Your task to perform on an android device: Open Chrome and go to the settings page Image 0: 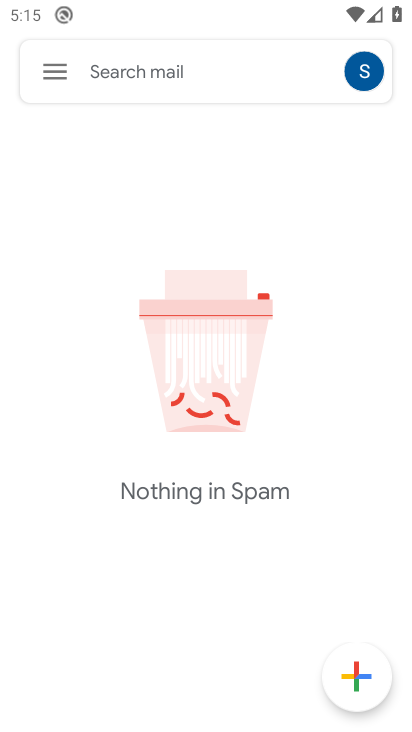
Step 0: drag from (187, 310) to (187, 254)
Your task to perform on an android device: Open Chrome and go to the settings page Image 1: 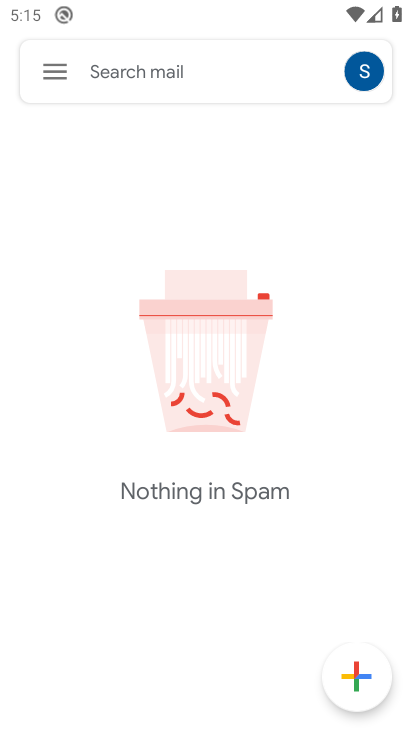
Step 1: press back button
Your task to perform on an android device: Open Chrome and go to the settings page Image 2: 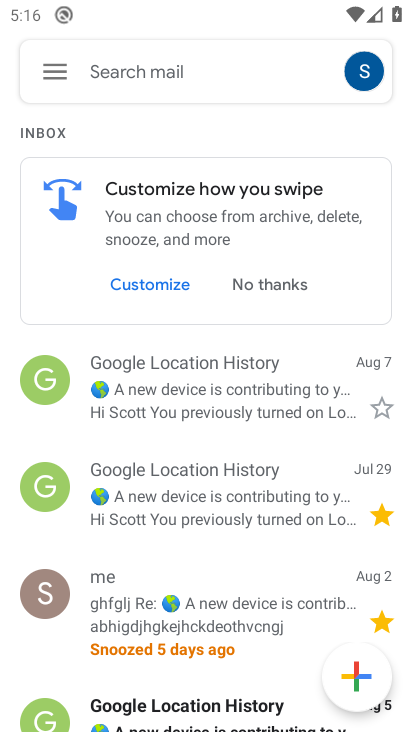
Step 2: press home button
Your task to perform on an android device: Open Chrome and go to the settings page Image 3: 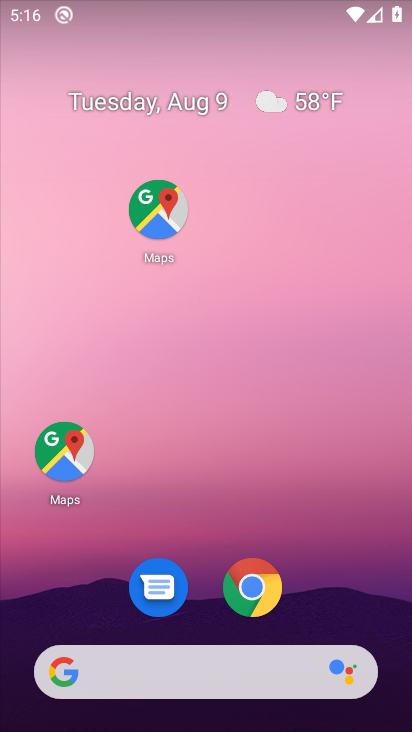
Step 3: drag from (237, 544) to (152, 31)
Your task to perform on an android device: Open Chrome and go to the settings page Image 4: 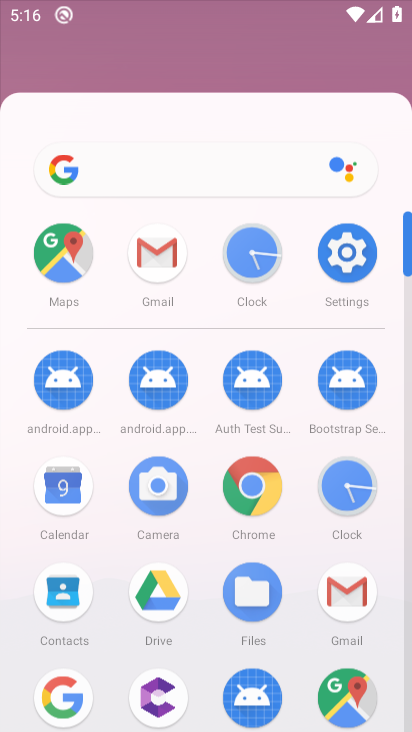
Step 4: drag from (179, 532) to (179, 47)
Your task to perform on an android device: Open Chrome and go to the settings page Image 5: 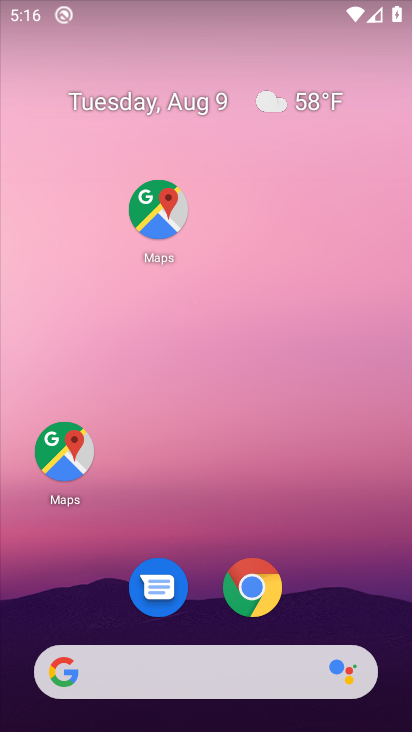
Step 5: drag from (192, 480) to (178, 191)
Your task to perform on an android device: Open Chrome and go to the settings page Image 6: 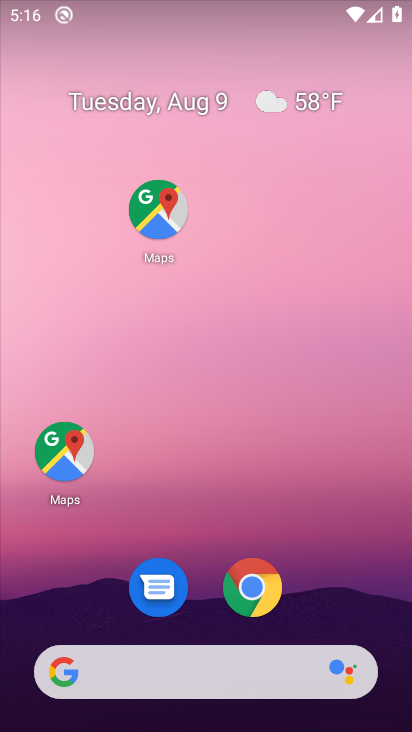
Step 6: drag from (171, 182) to (171, 101)
Your task to perform on an android device: Open Chrome and go to the settings page Image 7: 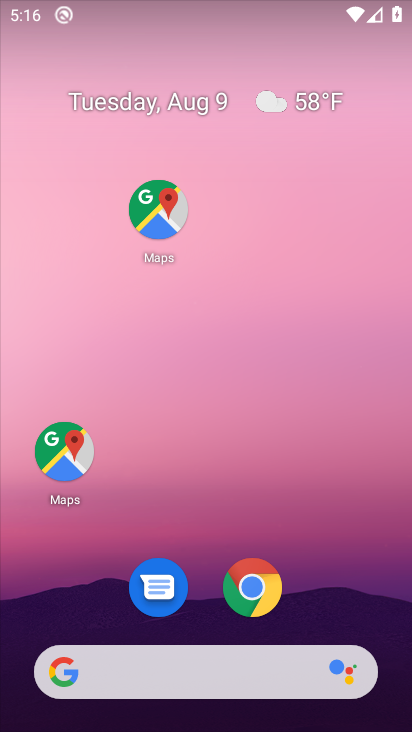
Step 7: drag from (204, 473) to (204, 198)
Your task to perform on an android device: Open Chrome and go to the settings page Image 8: 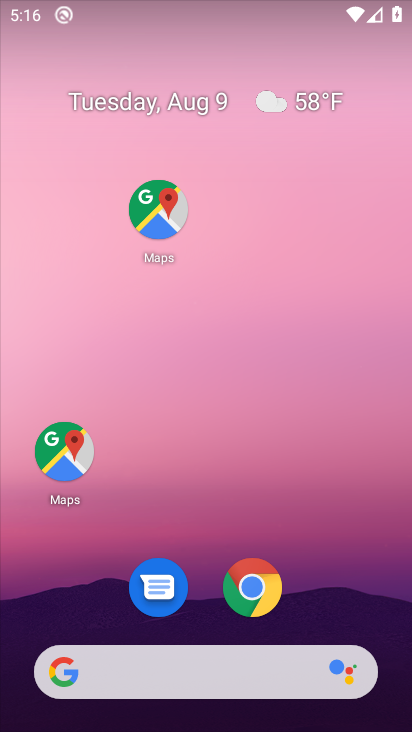
Step 8: drag from (209, 643) to (207, 51)
Your task to perform on an android device: Open Chrome and go to the settings page Image 9: 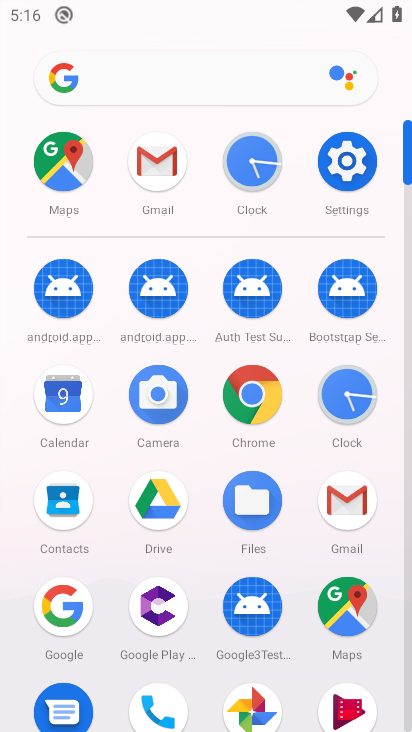
Step 9: click (322, 152)
Your task to perform on an android device: Open Chrome and go to the settings page Image 10: 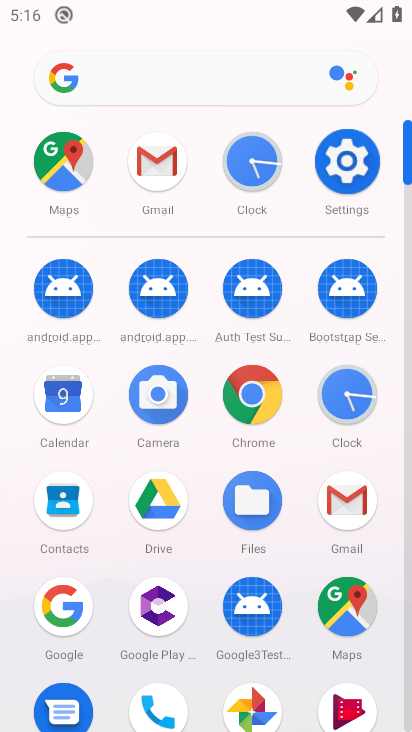
Step 10: click (329, 155)
Your task to perform on an android device: Open Chrome and go to the settings page Image 11: 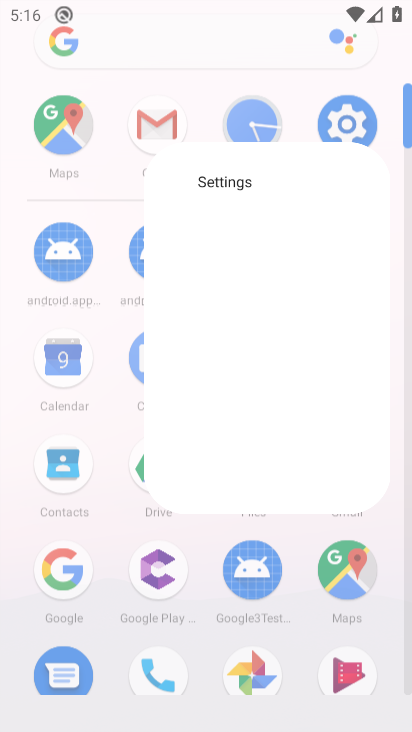
Step 11: click (329, 155)
Your task to perform on an android device: Open Chrome and go to the settings page Image 12: 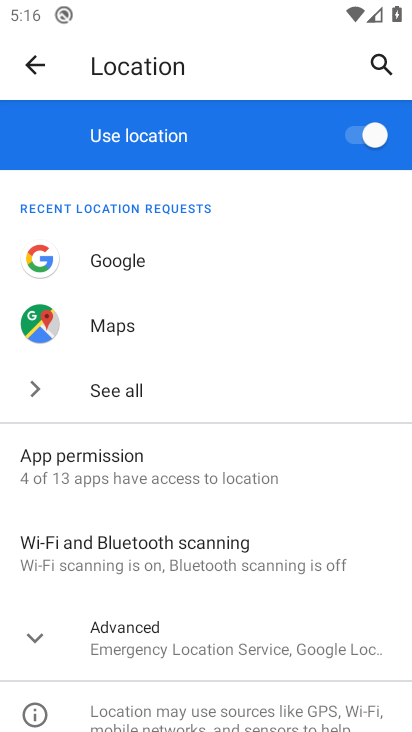
Step 12: click (33, 47)
Your task to perform on an android device: Open Chrome and go to the settings page Image 13: 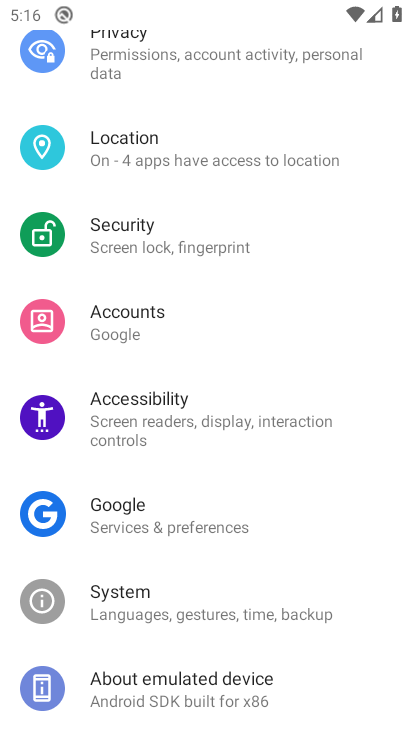
Step 13: click (34, 62)
Your task to perform on an android device: Open Chrome and go to the settings page Image 14: 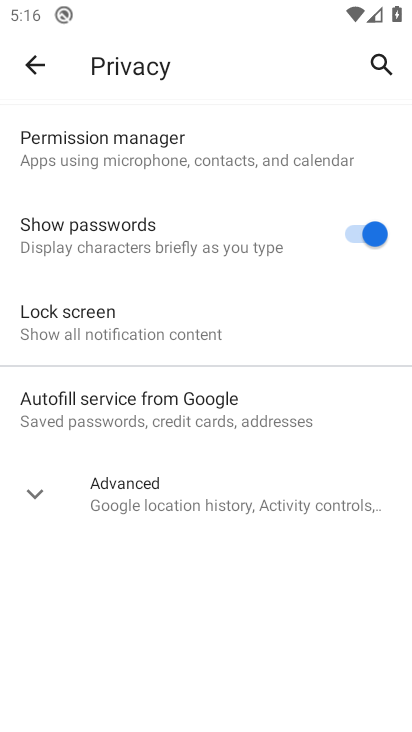
Step 14: press back button
Your task to perform on an android device: Open Chrome and go to the settings page Image 15: 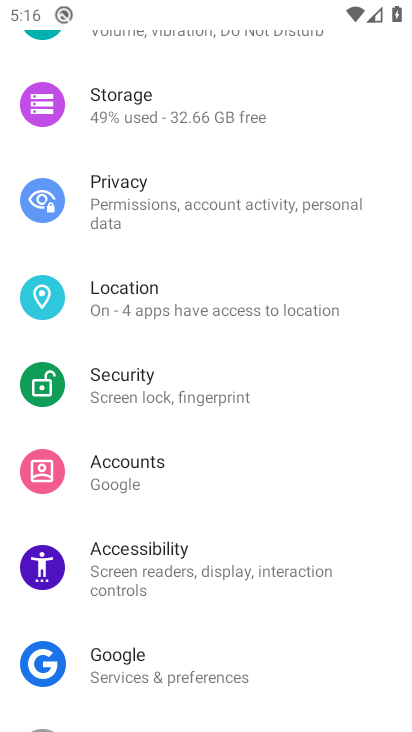
Step 15: press home button
Your task to perform on an android device: Open Chrome and go to the settings page Image 16: 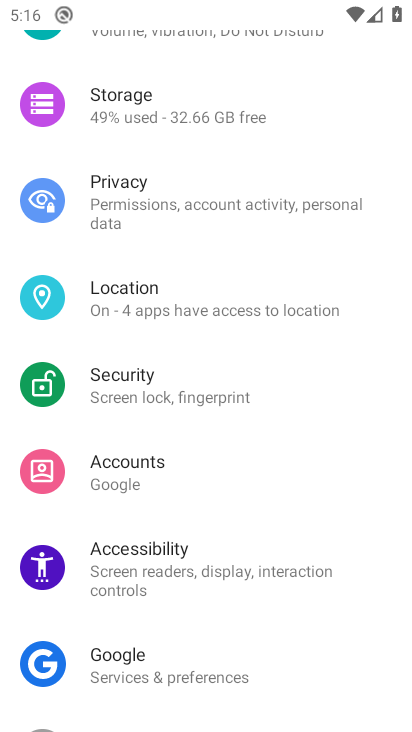
Step 16: press home button
Your task to perform on an android device: Open Chrome and go to the settings page Image 17: 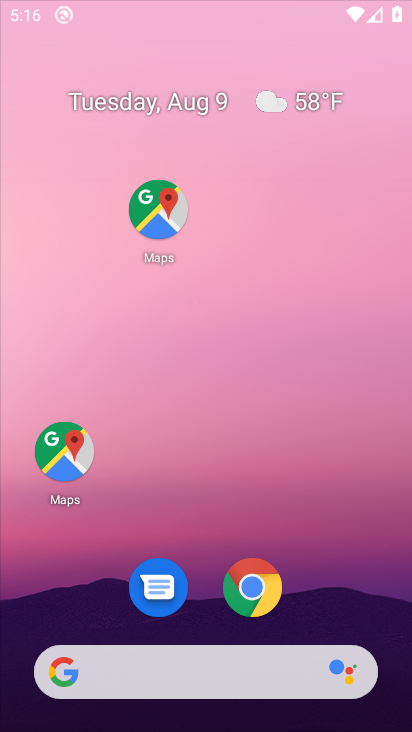
Step 17: press home button
Your task to perform on an android device: Open Chrome and go to the settings page Image 18: 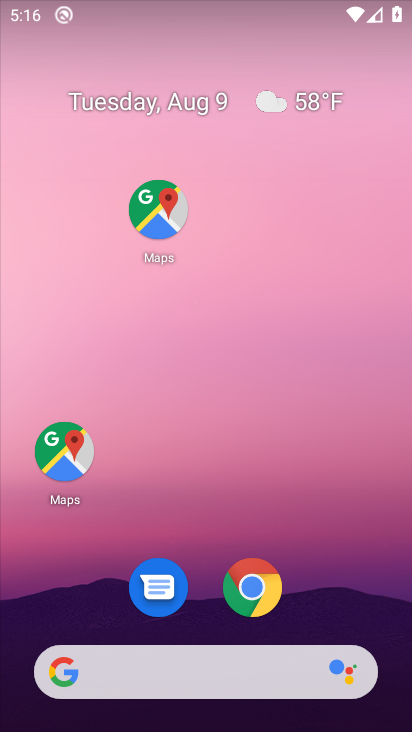
Step 18: drag from (212, 521) to (212, 3)
Your task to perform on an android device: Open Chrome and go to the settings page Image 19: 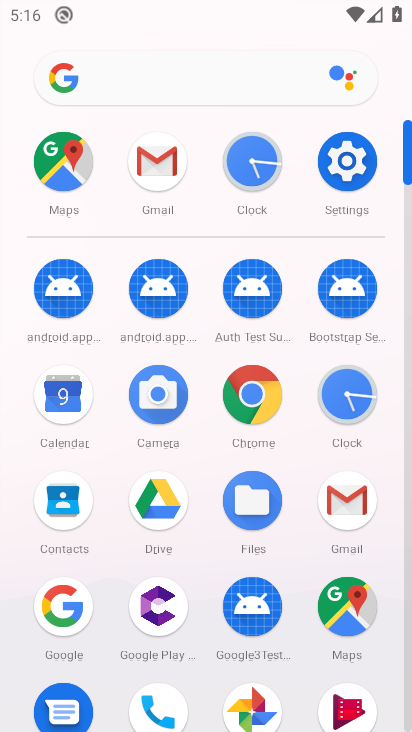
Step 19: click (255, 386)
Your task to perform on an android device: Open Chrome and go to the settings page Image 20: 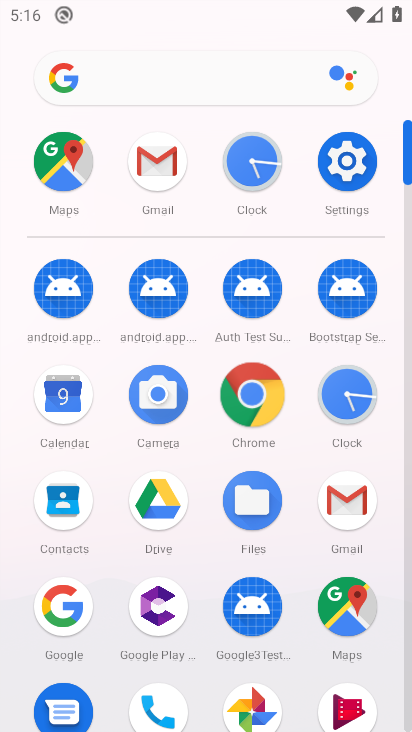
Step 20: click (256, 386)
Your task to perform on an android device: Open Chrome and go to the settings page Image 21: 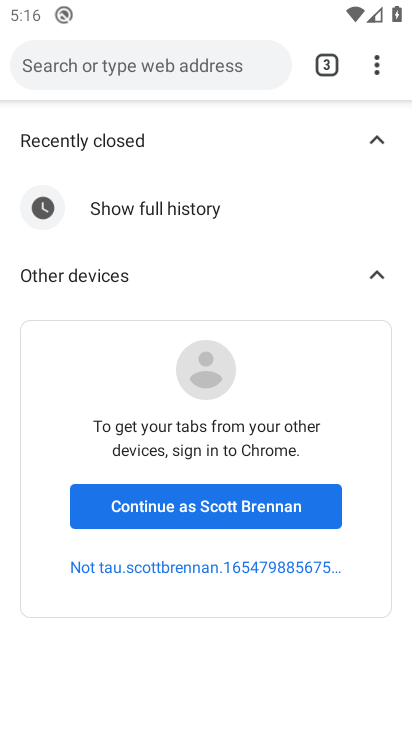
Step 21: drag from (373, 63) to (134, 541)
Your task to perform on an android device: Open Chrome and go to the settings page Image 22: 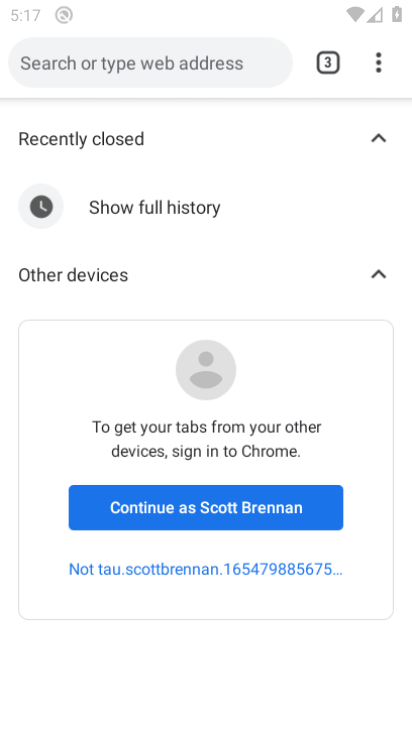
Step 22: click (145, 541)
Your task to perform on an android device: Open Chrome and go to the settings page Image 23: 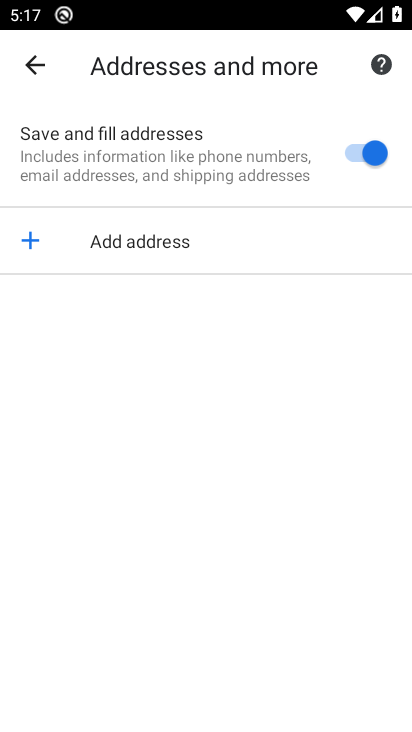
Step 23: task complete